Your task to perform on an android device: Go to Reddit.com Image 0: 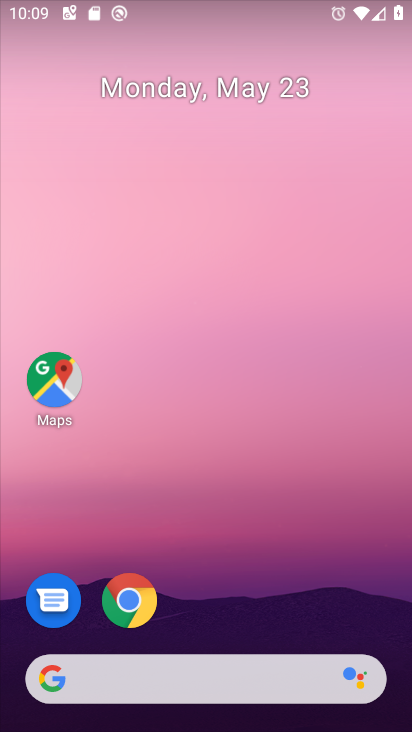
Step 0: click (128, 599)
Your task to perform on an android device: Go to Reddit.com Image 1: 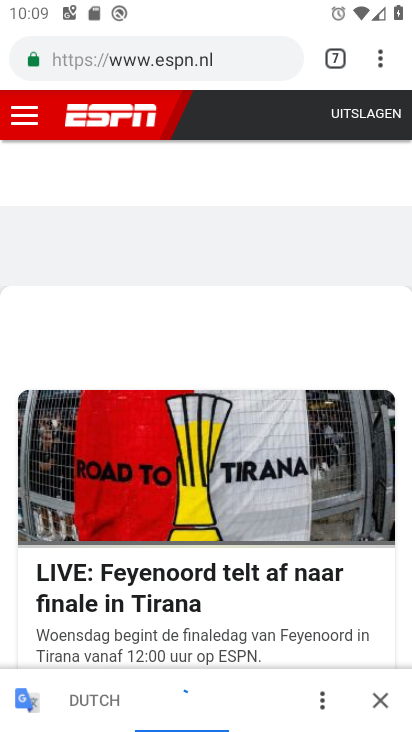
Step 1: click (380, 63)
Your task to perform on an android device: Go to Reddit.com Image 2: 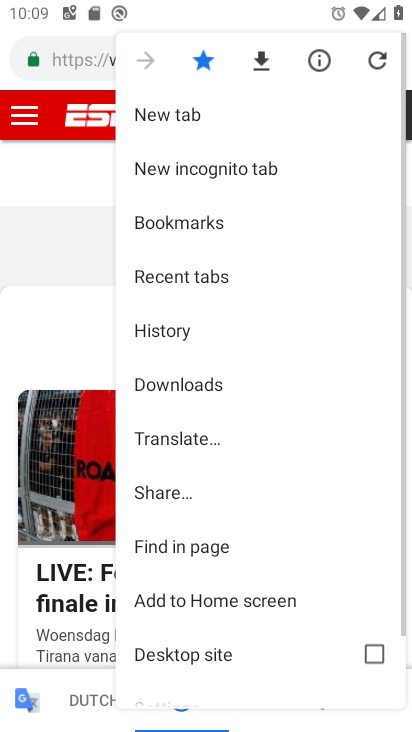
Step 2: click (176, 115)
Your task to perform on an android device: Go to Reddit.com Image 3: 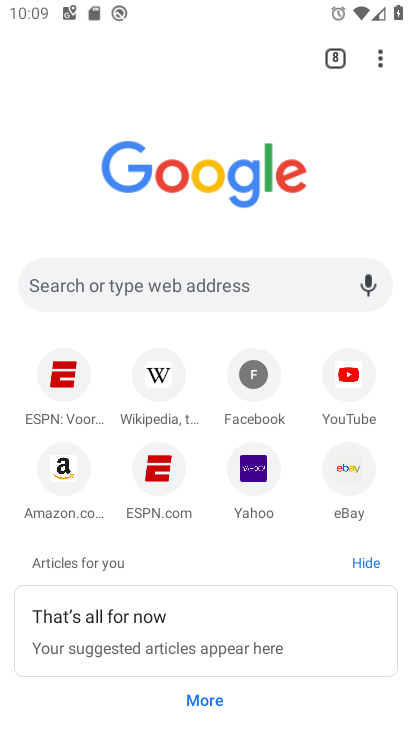
Step 3: click (198, 289)
Your task to perform on an android device: Go to Reddit.com Image 4: 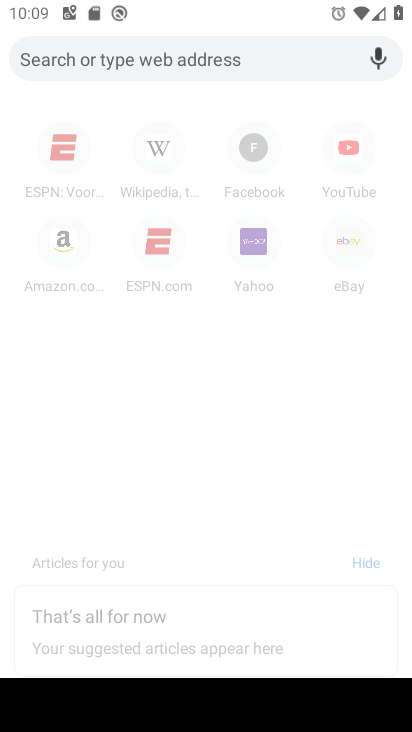
Step 4: type "Reddit.com"
Your task to perform on an android device: Go to Reddit.com Image 5: 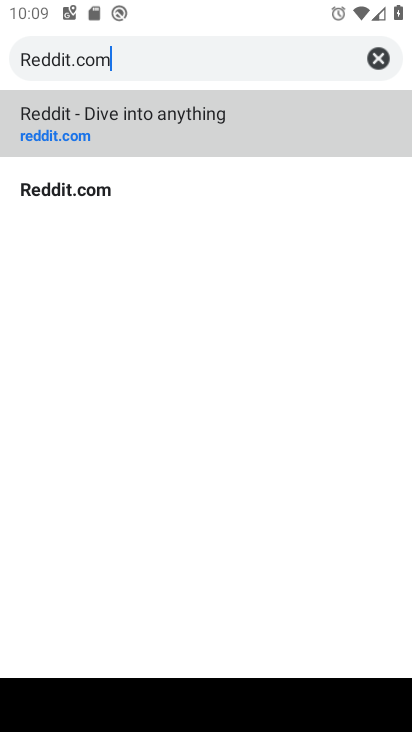
Step 5: click (58, 191)
Your task to perform on an android device: Go to Reddit.com Image 6: 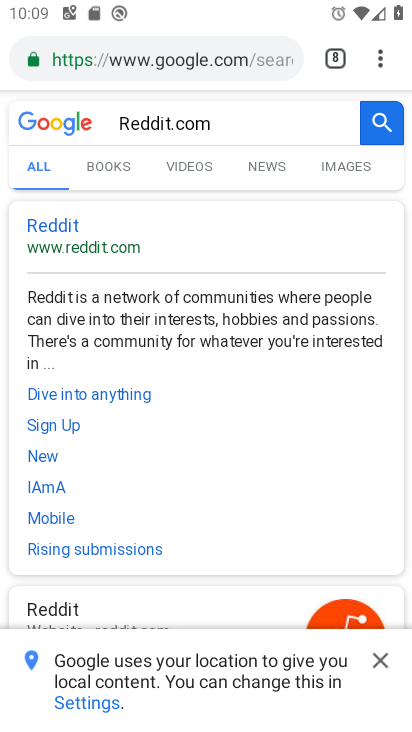
Step 6: click (61, 221)
Your task to perform on an android device: Go to Reddit.com Image 7: 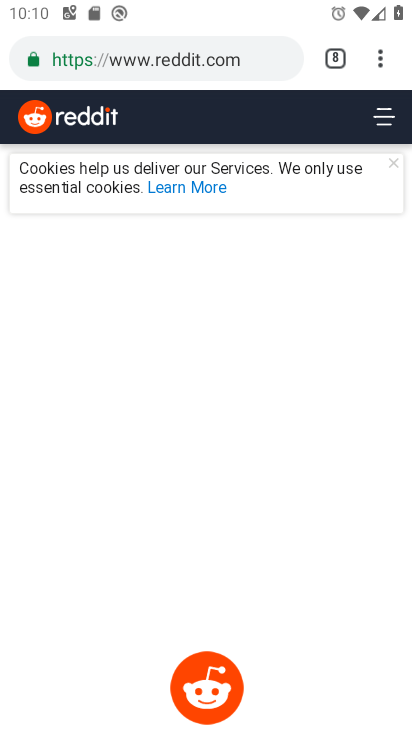
Step 7: task complete